Your task to perform on an android device: Check the news Image 0: 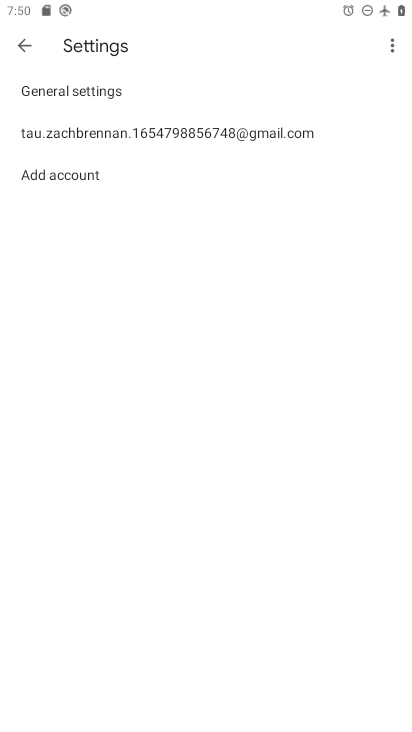
Step 0: press home button
Your task to perform on an android device: Check the news Image 1: 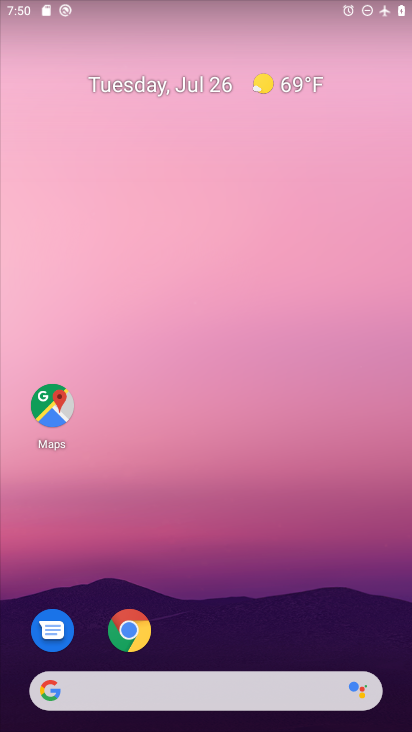
Step 1: drag from (261, 622) to (223, 108)
Your task to perform on an android device: Check the news Image 2: 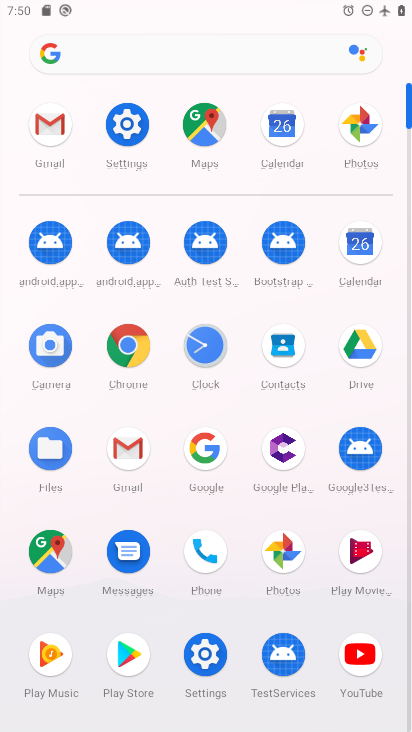
Step 2: click (211, 451)
Your task to perform on an android device: Check the news Image 3: 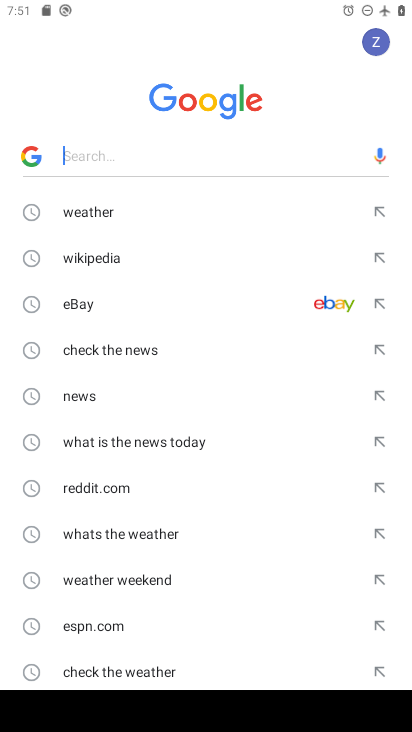
Step 3: click (164, 360)
Your task to perform on an android device: Check the news Image 4: 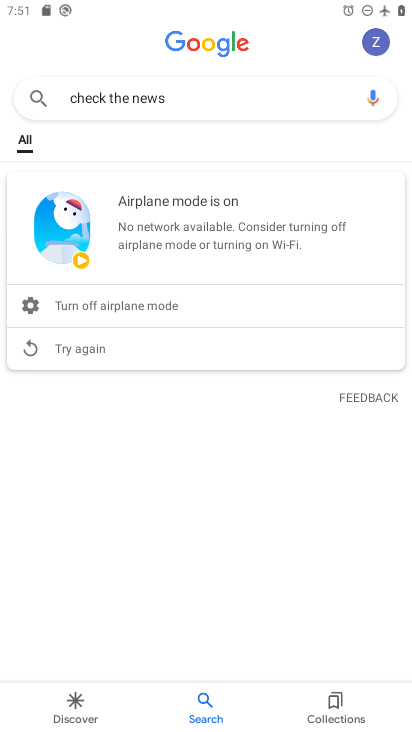
Step 4: task complete